Your task to perform on an android device: turn off smart reply in the gmail app Image 0: 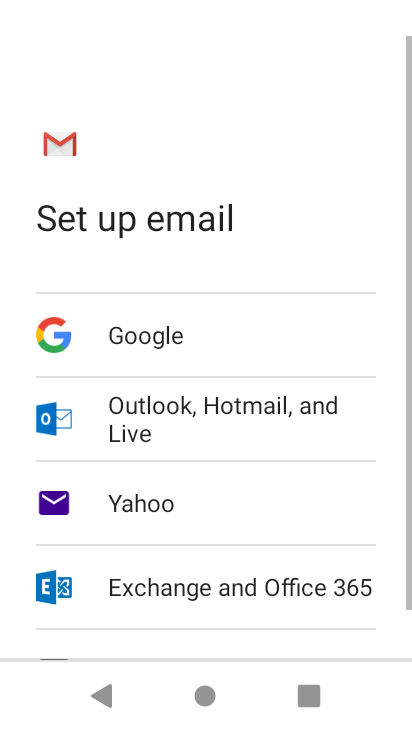
Step 0: press back button
Your task to perform on an android device: turn off smart reply in the gmail app Image 1: 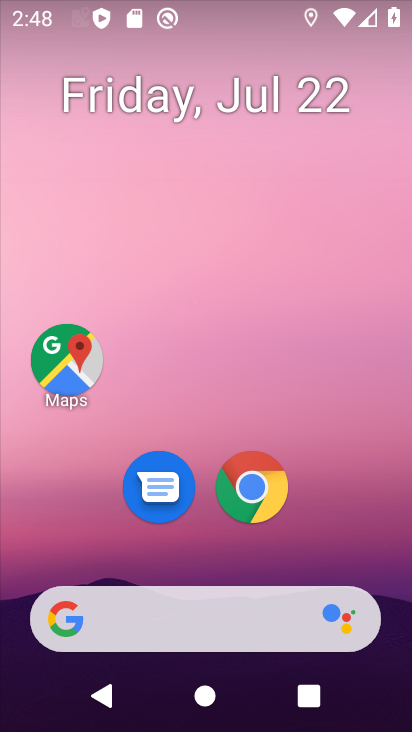
Step 1: drag from (151, 569) to (167, 0)
Your task to perform on an android device: turn off smart reply in the gmail app Image 2: 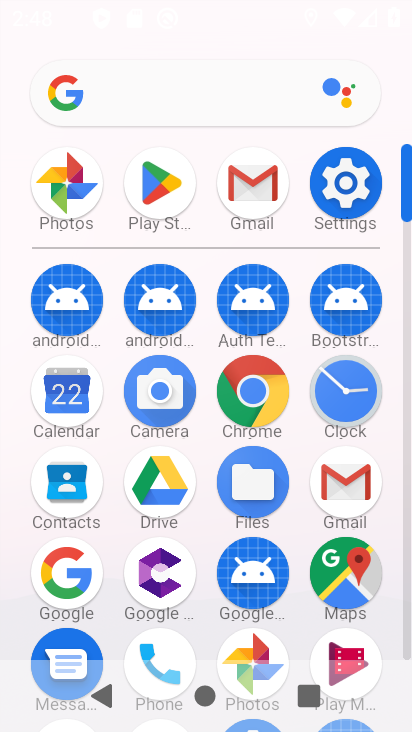
Step 2: click (254, 170)
Your task to perform on an android device: turn off smart reply in the gmail app Image 3: 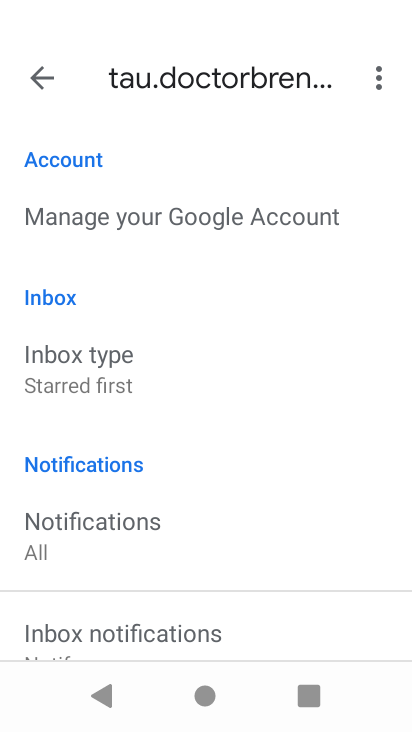
Step 3: task complete